Your task to perform on an android device: check google app version Image 0: 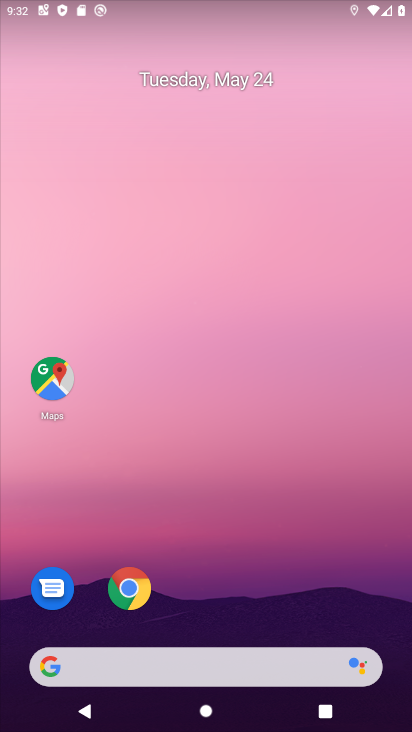
Step 0: drag from (214, 604) to (128, 19)
Your task to perform on an android device: check google app version Image 1: 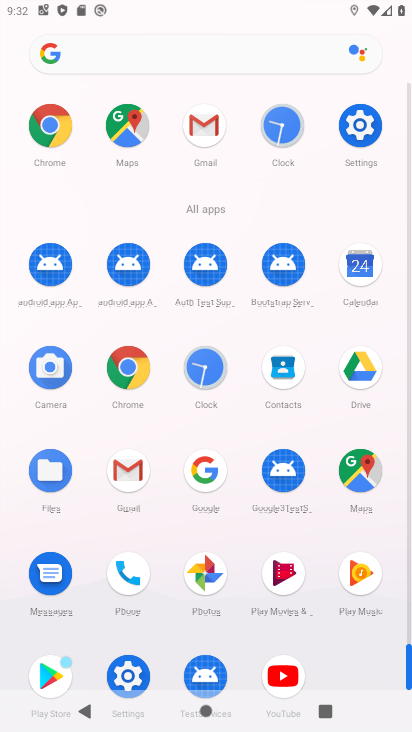
Step 1: drag from (8, 615) to (16, 381)
Your task to perform on an android device: check google app version Image 2: 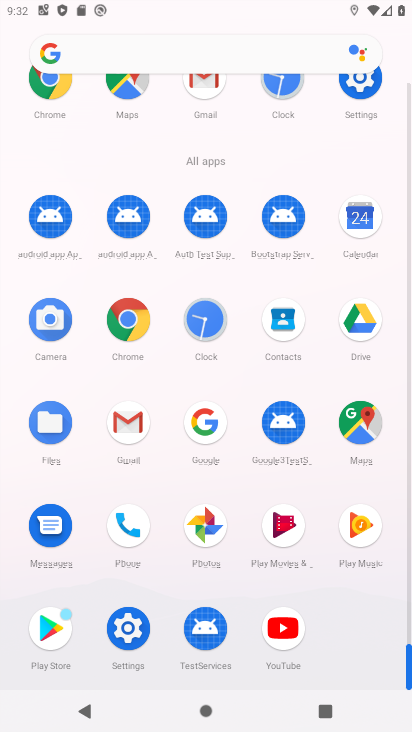
Step 2: click (202, 417)
Your task to perform on an android device: check google app version Image 3: 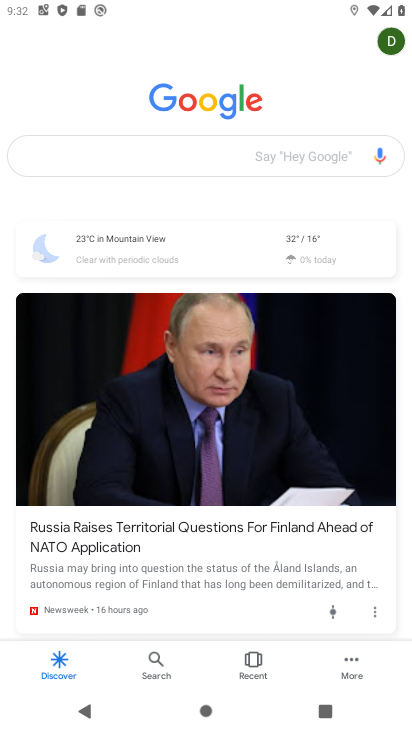
Step 3: click (347, 661)
Your task to perform on an android device: check google app version Image 4: 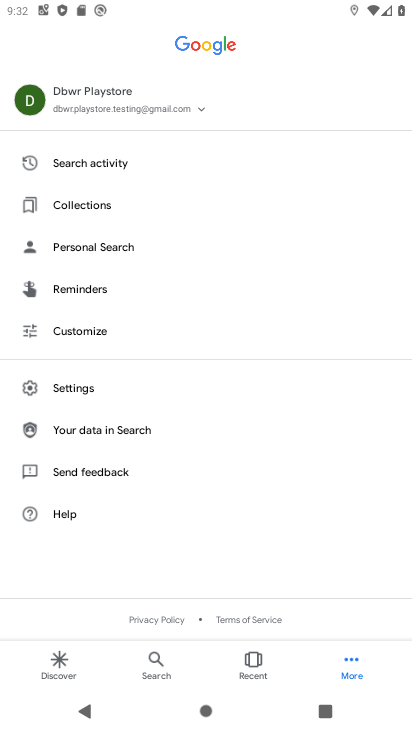
Step 4: click (88, 383)
Your task to perform on an android device: check google app version Image 5: 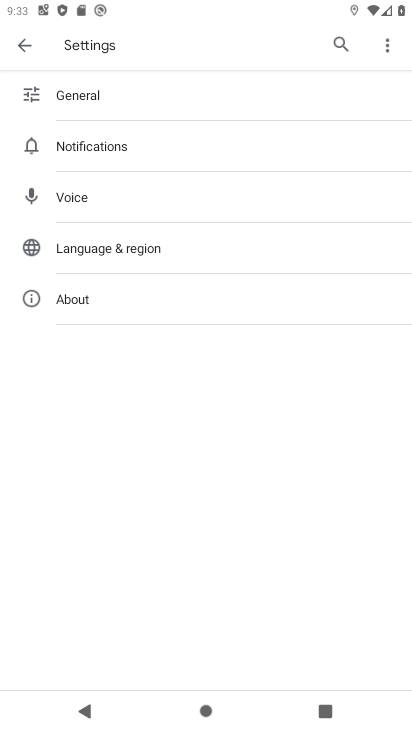
Step 5: click (142, 309)
Your task to perform on an android device: check google app version Image 6: 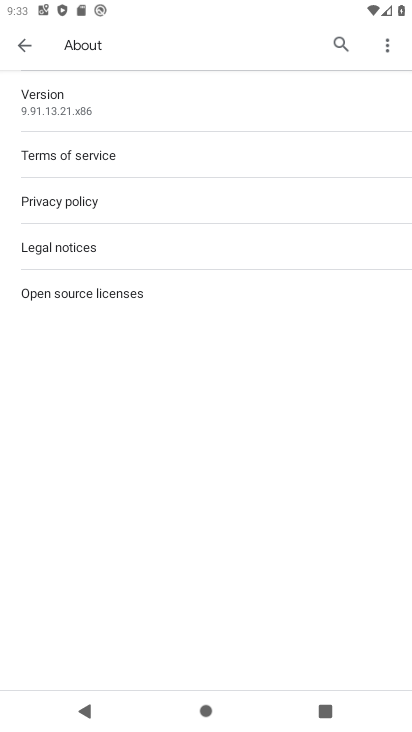
Step 6: task complete